Your task to perform on an android device: find photos in the google photos app Image 0: 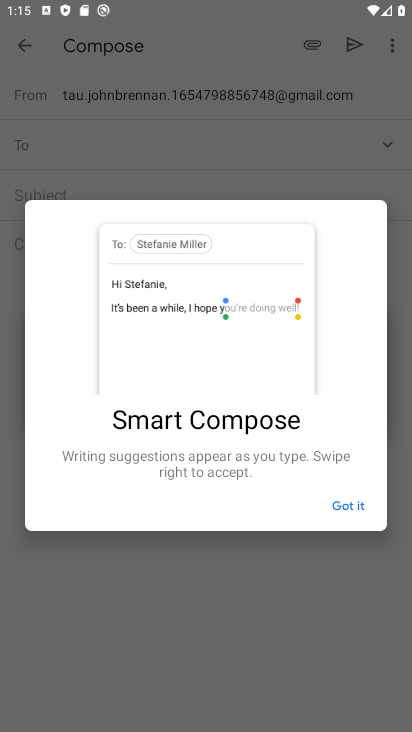
Step 0: press home button
Your task to perform on an android device: find photos in the google photos app Image 1: 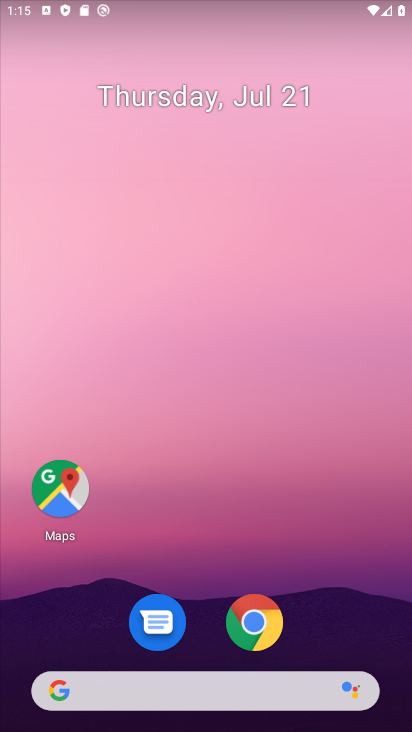
Step 1: drag from (344, 537) to (338, 143)
Your task to perform on an android device: find photos in the google photos app Image 2: 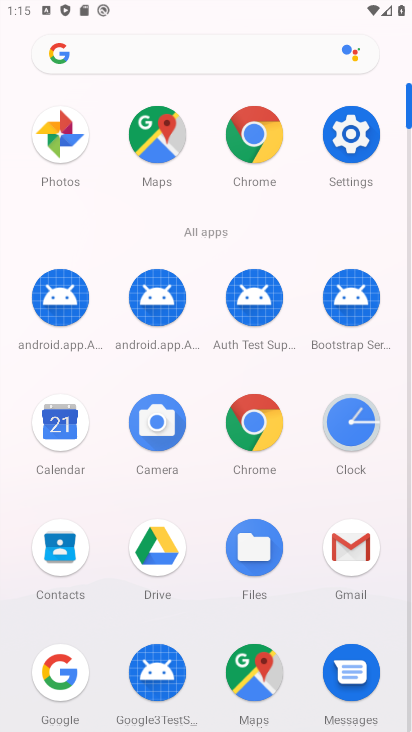
Step 2: drag from (208, 582) to (240, 417)
Your task to perform on an android device: find photos in the google photos app Image 3: 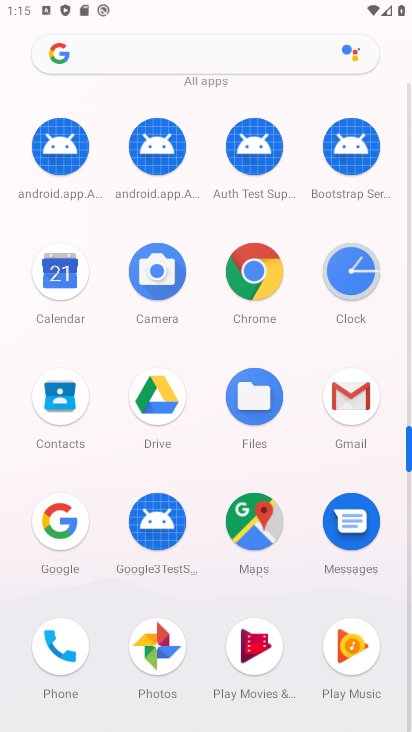
Step 3: click (162, 637)
Your task to perform on an android device: find photos in the google photos app Image 4: 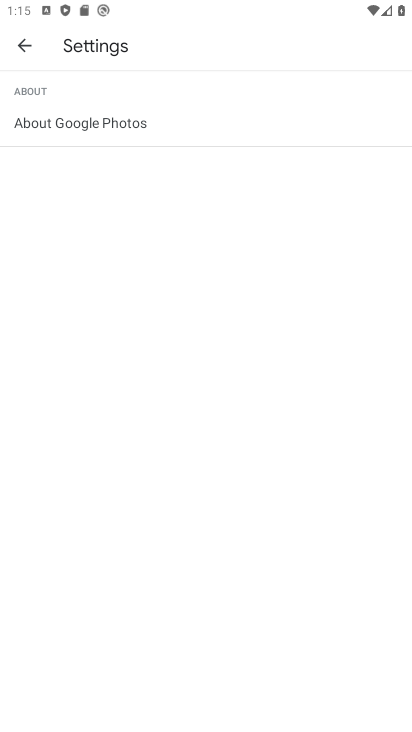
Step 4: click (21, 52)
Your task to perform on an android device: find photos in the google photos app Image 5: 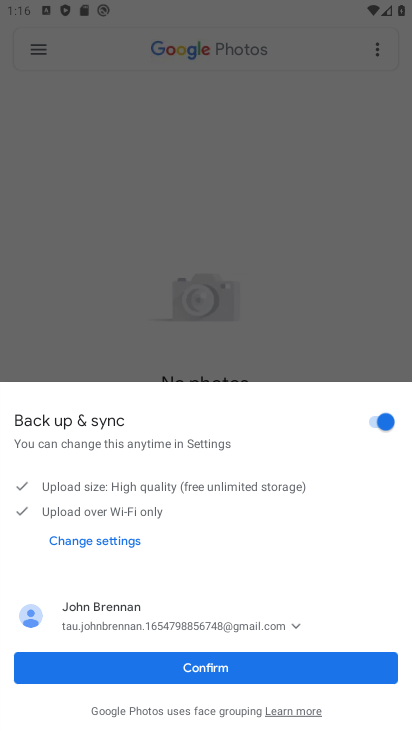
Step 5: click (198, 668)
Your task to perform on an android device: find photos in the google photos app Image 6: 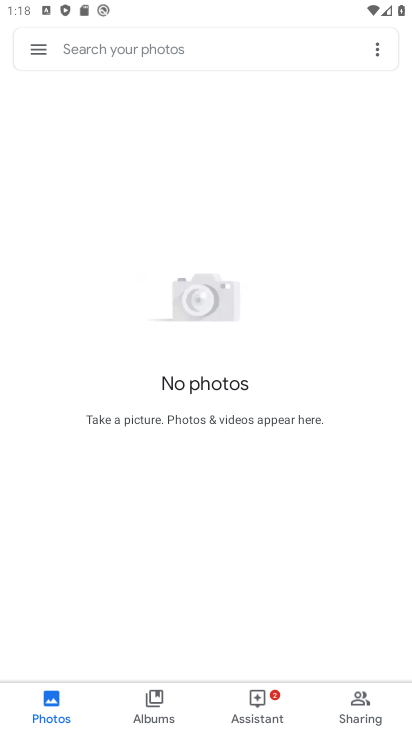
Step 6: task complete